Your task to perform on an android device: add a contact Image 0: 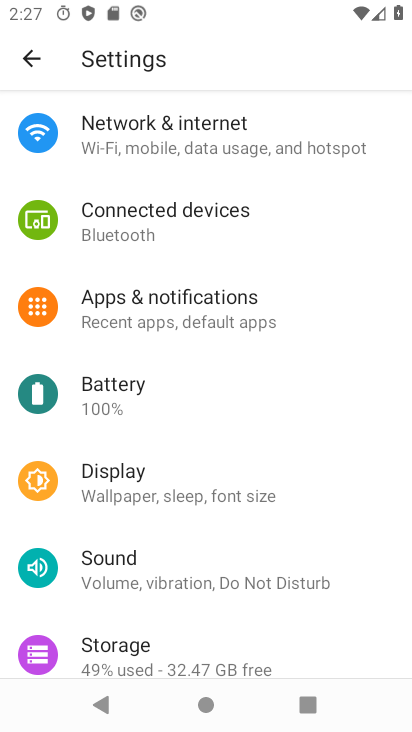
Step 0: press home button
Your task to perform on an android device: add a contact Image 1: 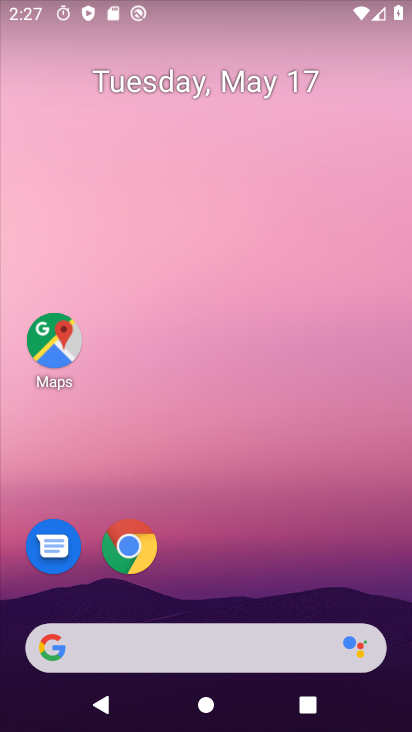
Step 1: drag from (201, 599) to (191, 213)
Your task to perform on an android device: add a contact Image 2: 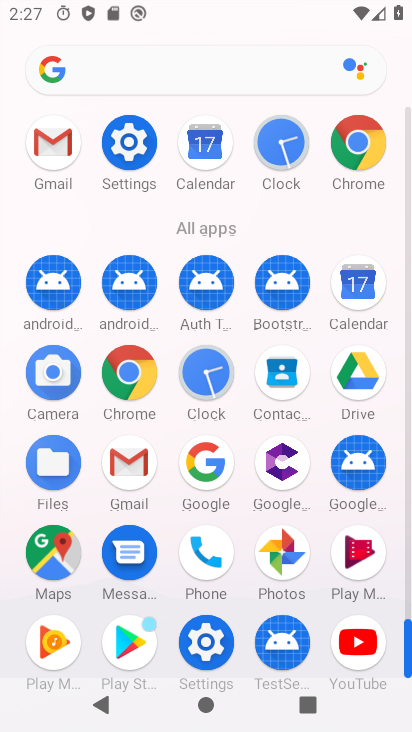
Step 2: click (280, 399)
Your task to perform on an android device: add a contact Image 3: 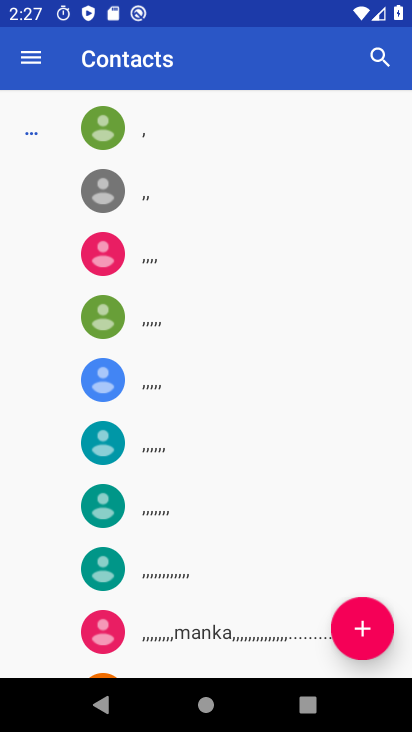
Step 3: click (363, 638)
Your task to perform on an android device: add a contact Image 4: 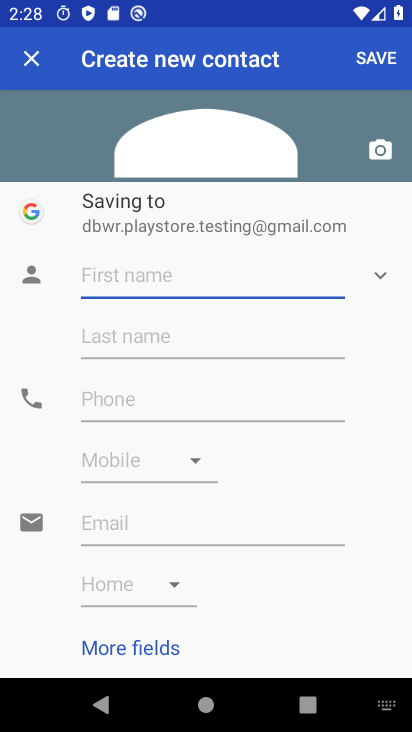
Step 4: type "hkgukjgfdfi"
Your task to perform on an android device: add a contact Image 5: 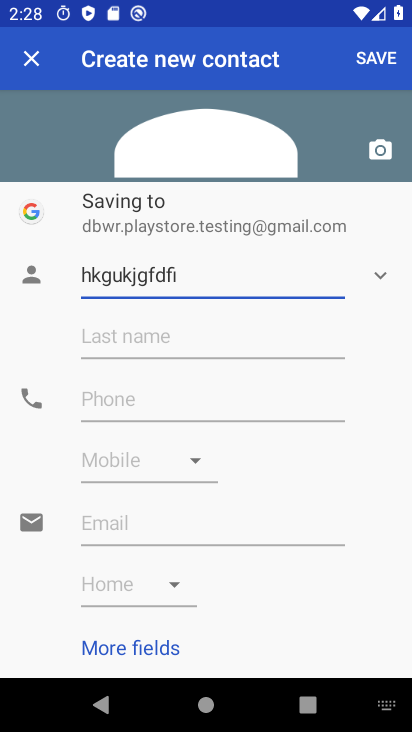
Step 5: click (178, 391)
Your task to perform on an android device: add a contact Image 6: 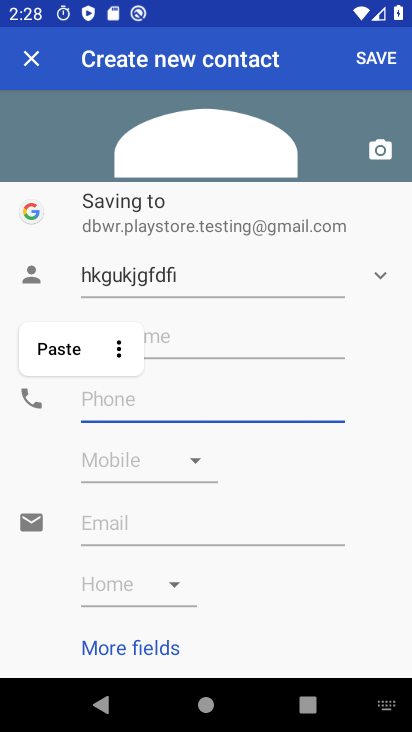
Step 6: type "98678756878"
Your task to perform on an android device: add a contact Image 7: 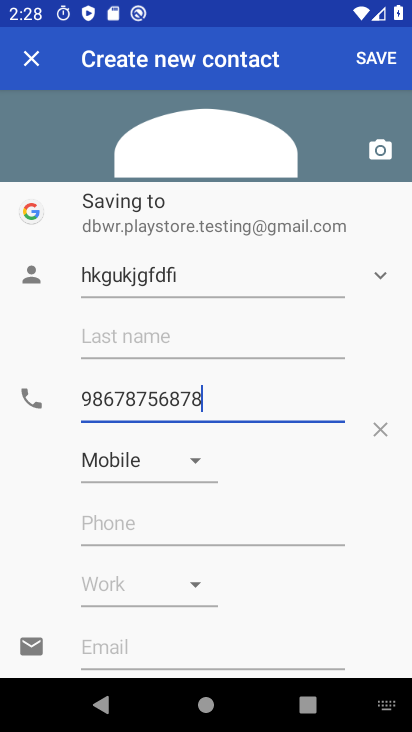
Step 7: click (249, 403)
Your task to perform on an android device: add a contact Image 8: 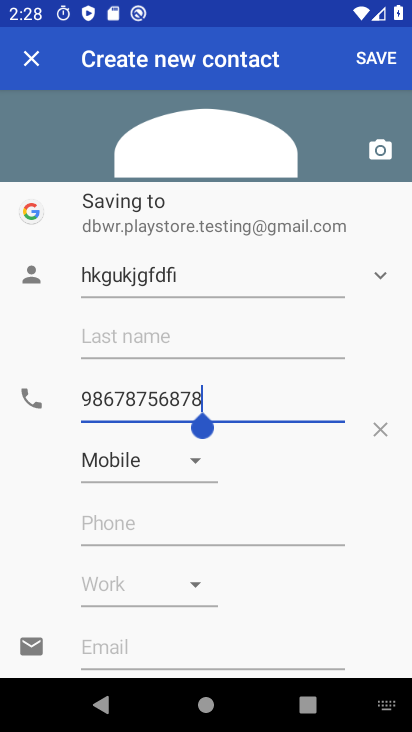
Step 8: click (386, 60)
Your task to perform on an android device: add a contact Image 9: 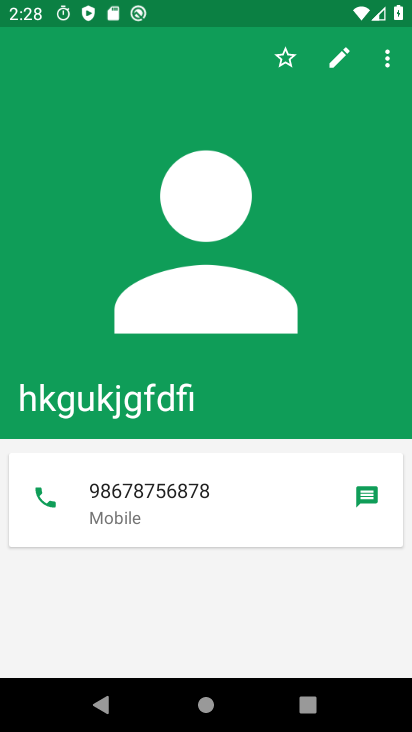
Step 9: task complete